Your task to perform on an android device: turn on javascript in the chrome app Image 0: 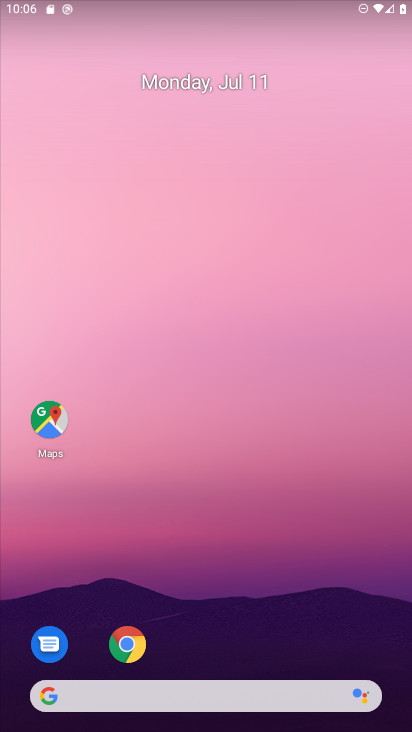
Step 0: drag from (179, 682) to (135, 201)
Your task to perform on an android device: turn on javascript in the chrome app Image 1: 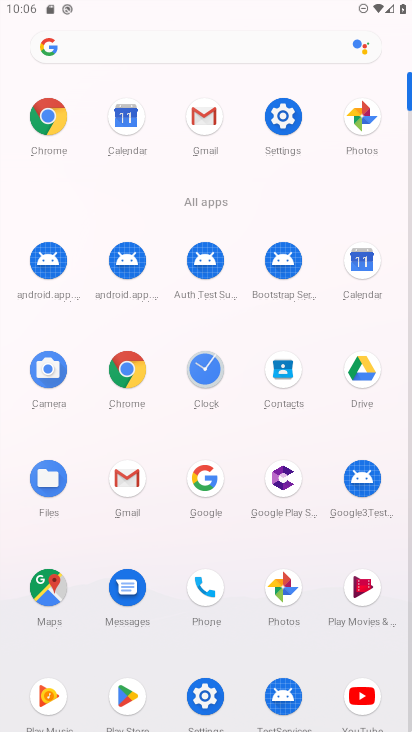
Step 1: click (129, 366)
Your task to perform on an android device: turn on javascript in the chrome app Image 2: 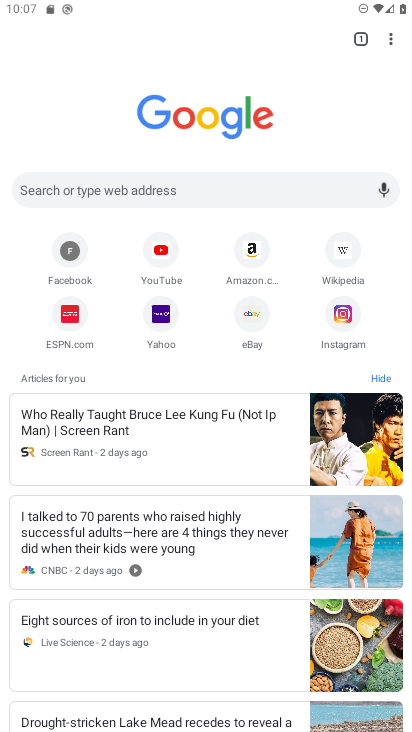
Step 2: click (391, 49)
Your task to perform on an android device: turn on javascript in the chrome app Image 3: 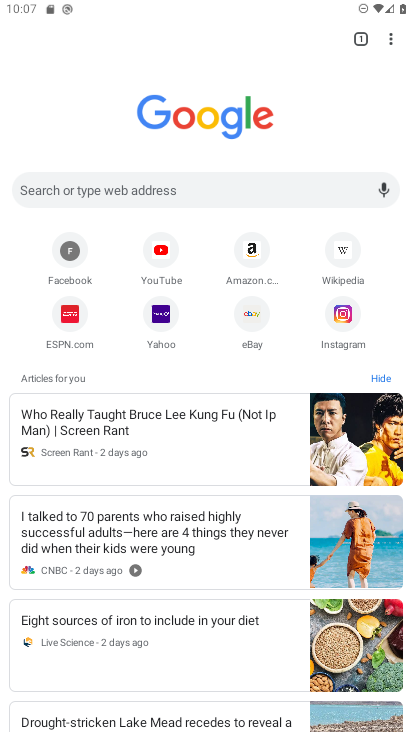
Step 3: click (384, 35)
Your task to perform on an android device: turn on javascript in the chrome app Image 4: 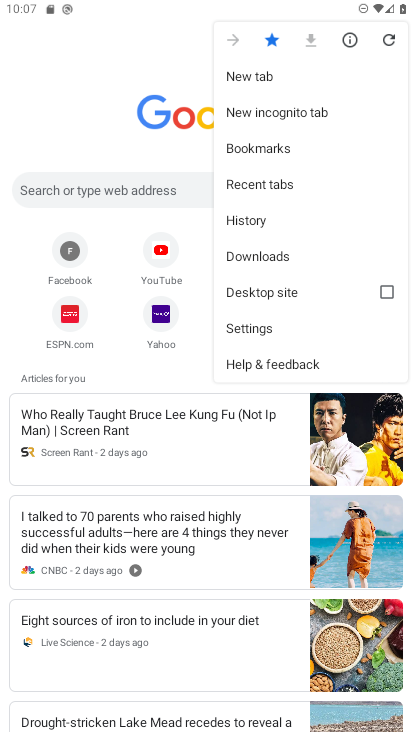
Step 4: click (251, 329)
Your task to perform on an android device: turn on javascript in the chrome app Image 5: 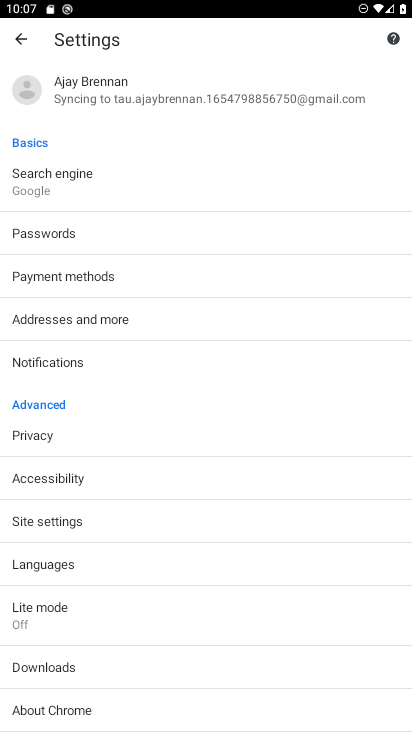
Step 5: click (33, 522)
Your task to perform on an android device: turn on javascript in the chrome app Image 6: 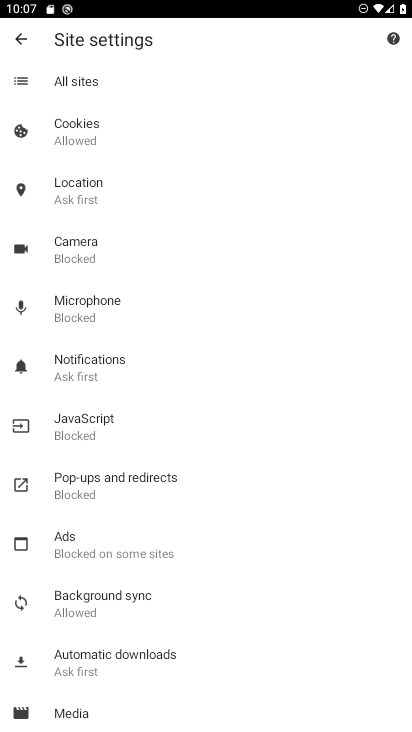
Step 6: click (89, 429)
Your task to perform on an android device: turn on javascript in the chrome app Image 7: 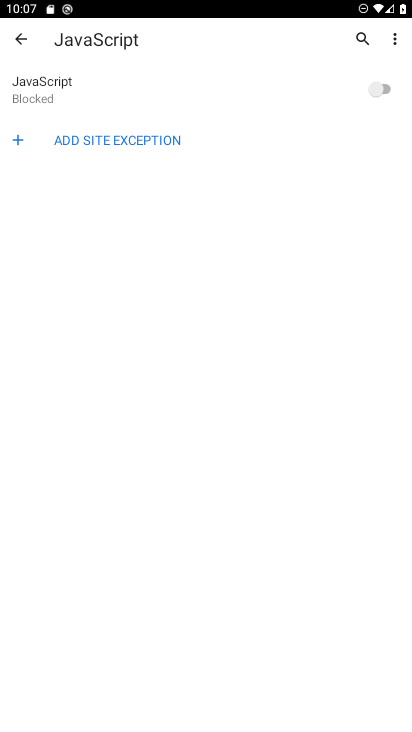
Step 7: click (388, 89)
Your task to perform on an android device: turn on javascript in the chrome app Image 8: 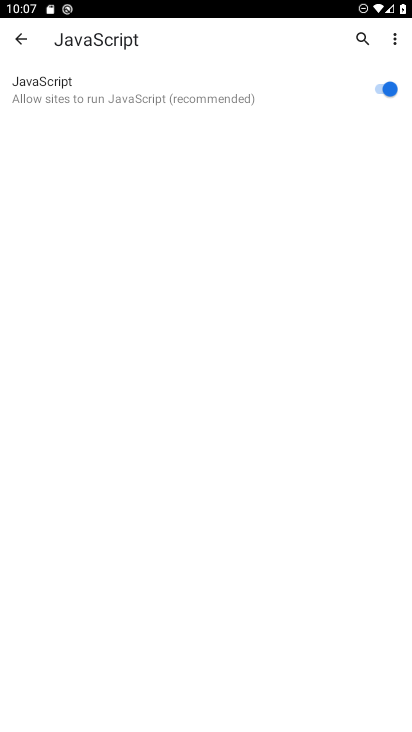
Step 8: task complete